Your task to perform on an android device: add a contact Image 0: 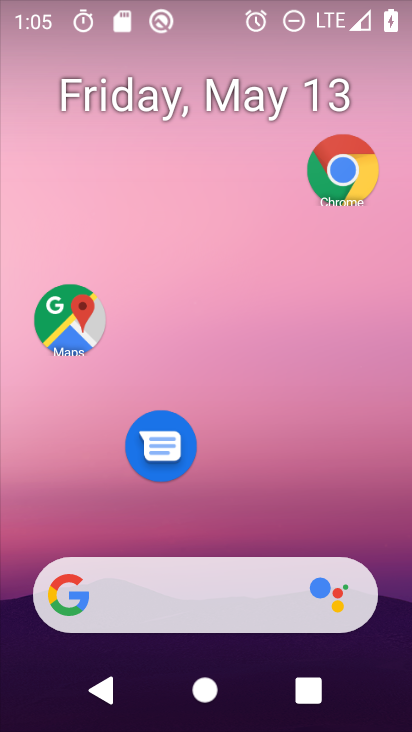
Step 0: drag from (300, 565) to (344, 35)
Your task to perform on an android device: add a contact Image 1: 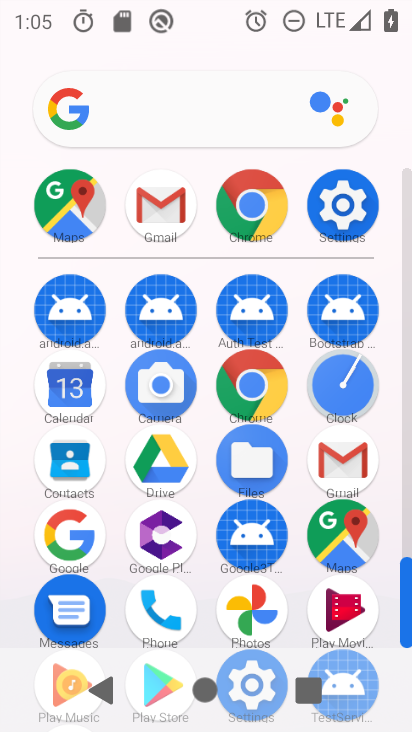
Step 1: click (91, 470)
Your task to perform on an android device: add a contact Image 2: 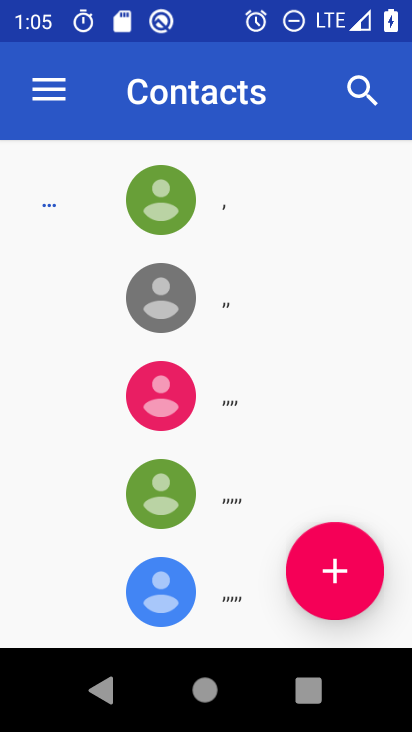
Step 2: click (352, 578)
Your task to perform on an android device: add a contact Image 3: 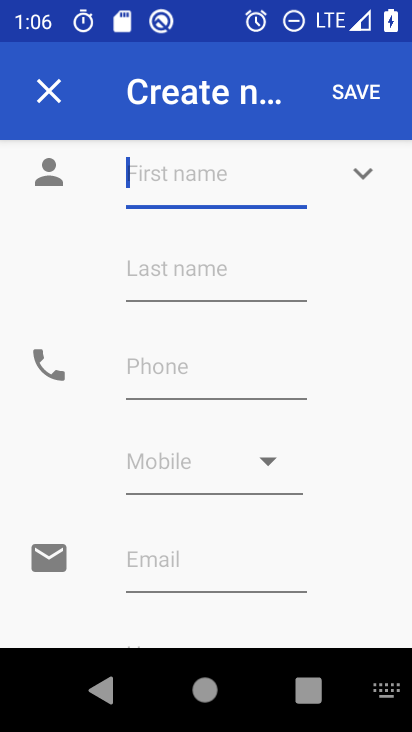
Step 3: type "jgjfhdhdj"
Your task to perform on an android device: add a contact Image 4: 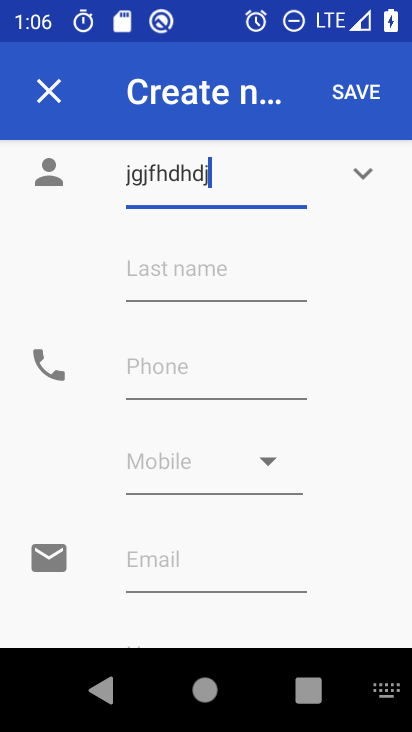
Step 4: click (212, 384)
Your task to perform on an android device: add a contact Image 5: 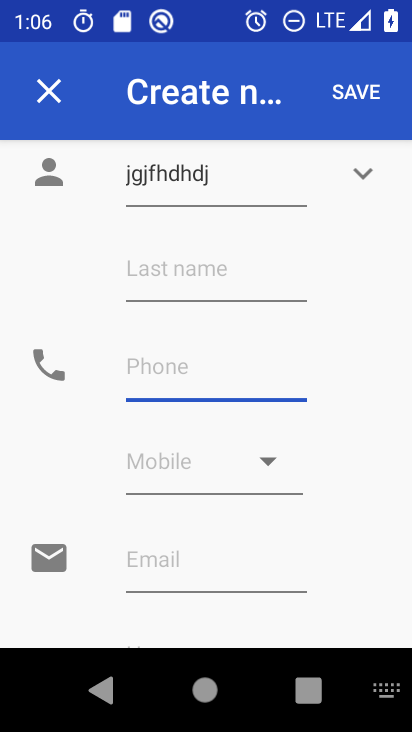
Step 5: type "98977889877"
Your task to perform on an android device: add a contact Image 6: 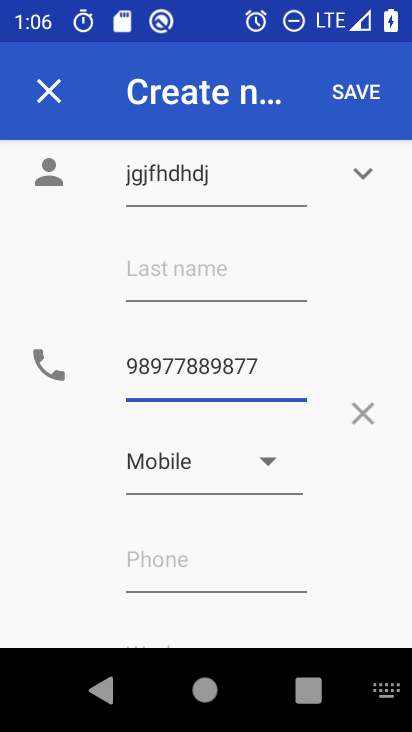
Step 6: click (371, 80)
Your task to perform on an android device: add a contact Image 7: 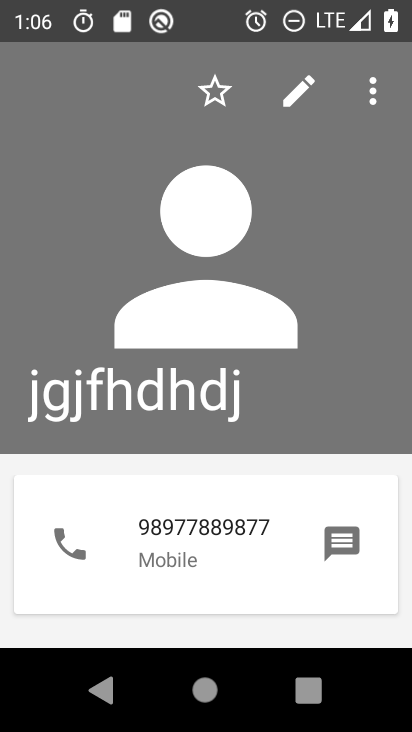
Step 7: task complete